Your task to perform on an android device: Open battery settings Image 0: 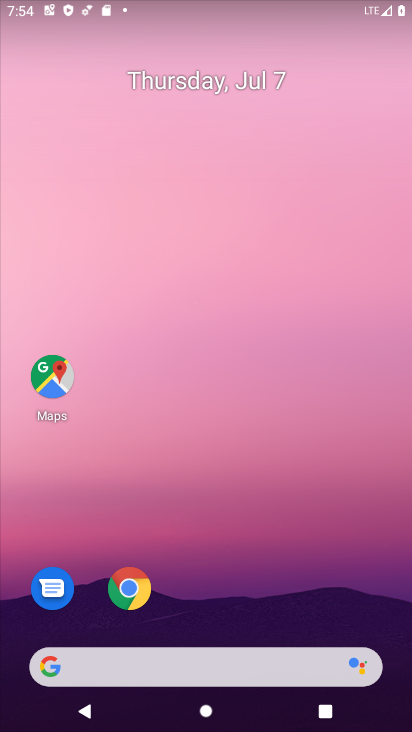
Step 0: drag from (161, 557) to (116, 144)
Your task to perform on an android device: Open battery settings Image 1: 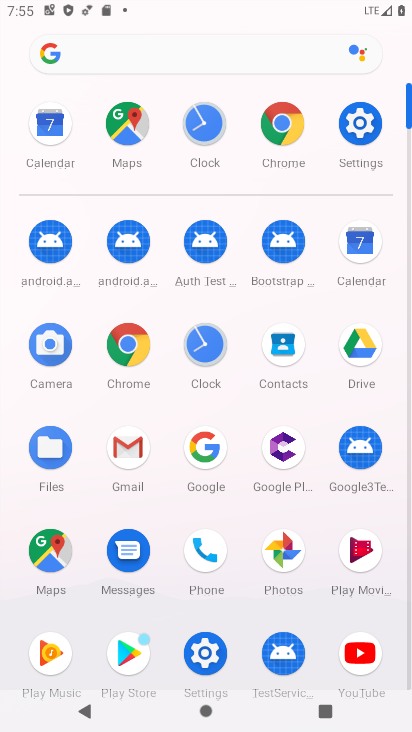
Step 1: click (365, 110)
Your task to perform on an android device: Open battery settings Image 2: 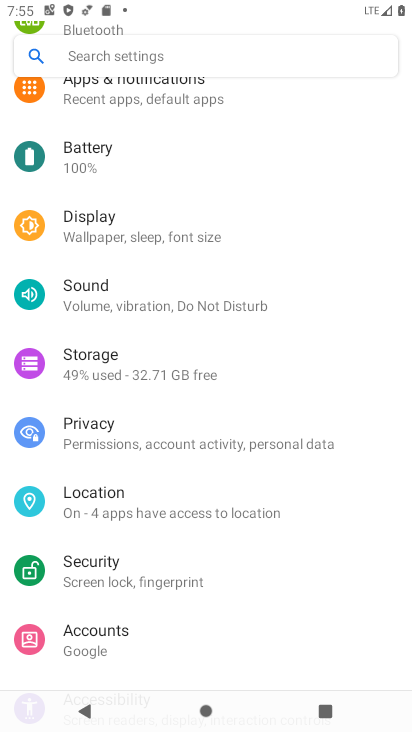
Step 2: click (77, 158)
Your task to perform on an android device: Open battery settings Image 3: 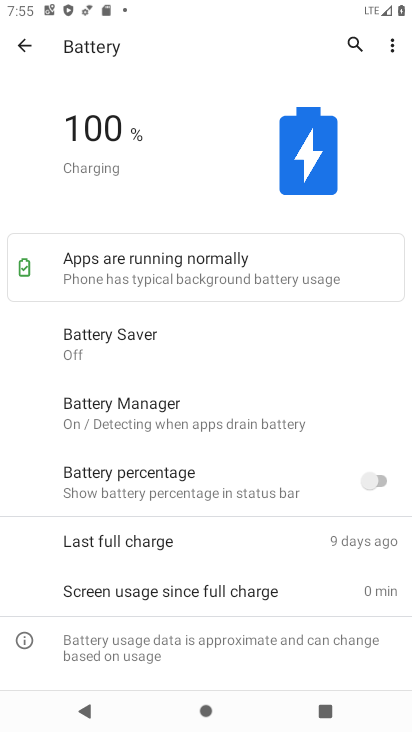
Step 3: task complete